Your task to perform on an android device: Search for Italian restaurants on Maps Image 0: 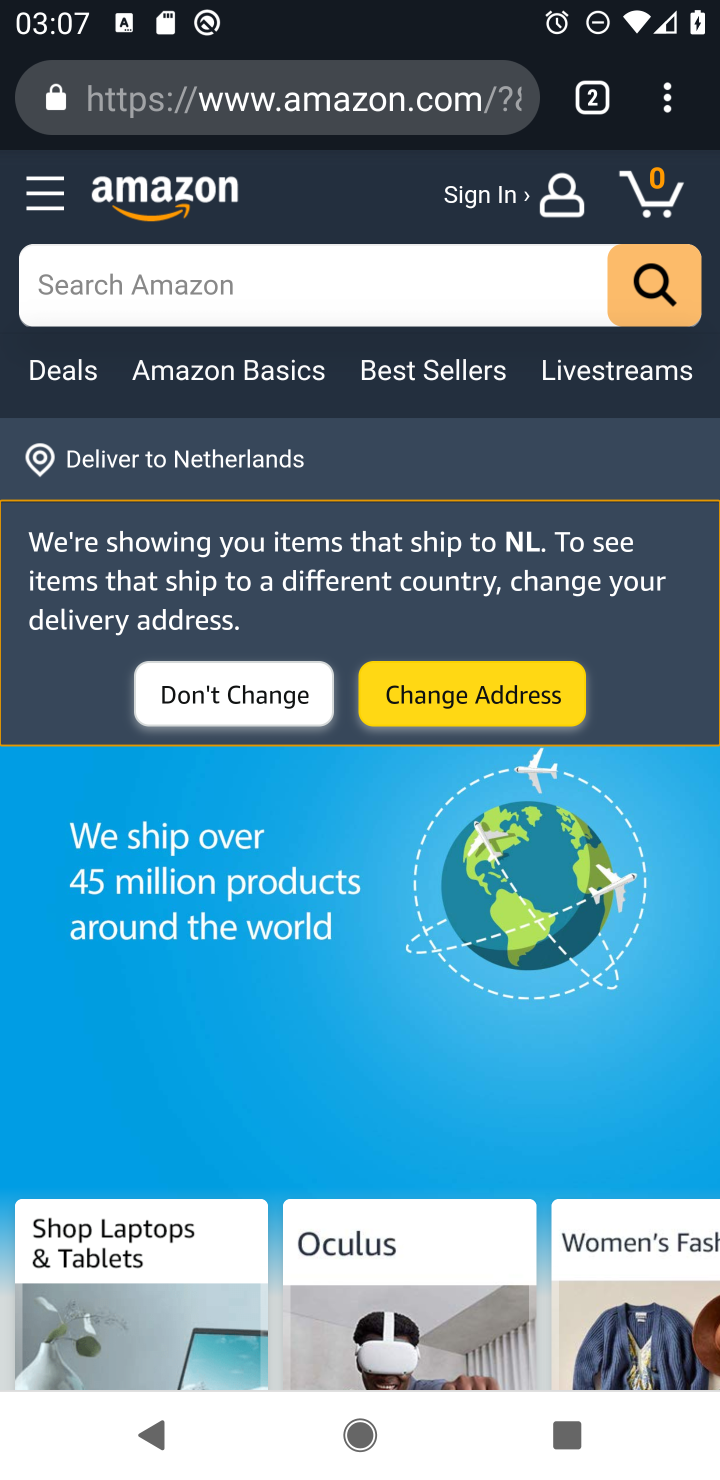
Step 0: press home button
Your task to perform on an android device: Search for Italian restaurants on Maps Image 1: 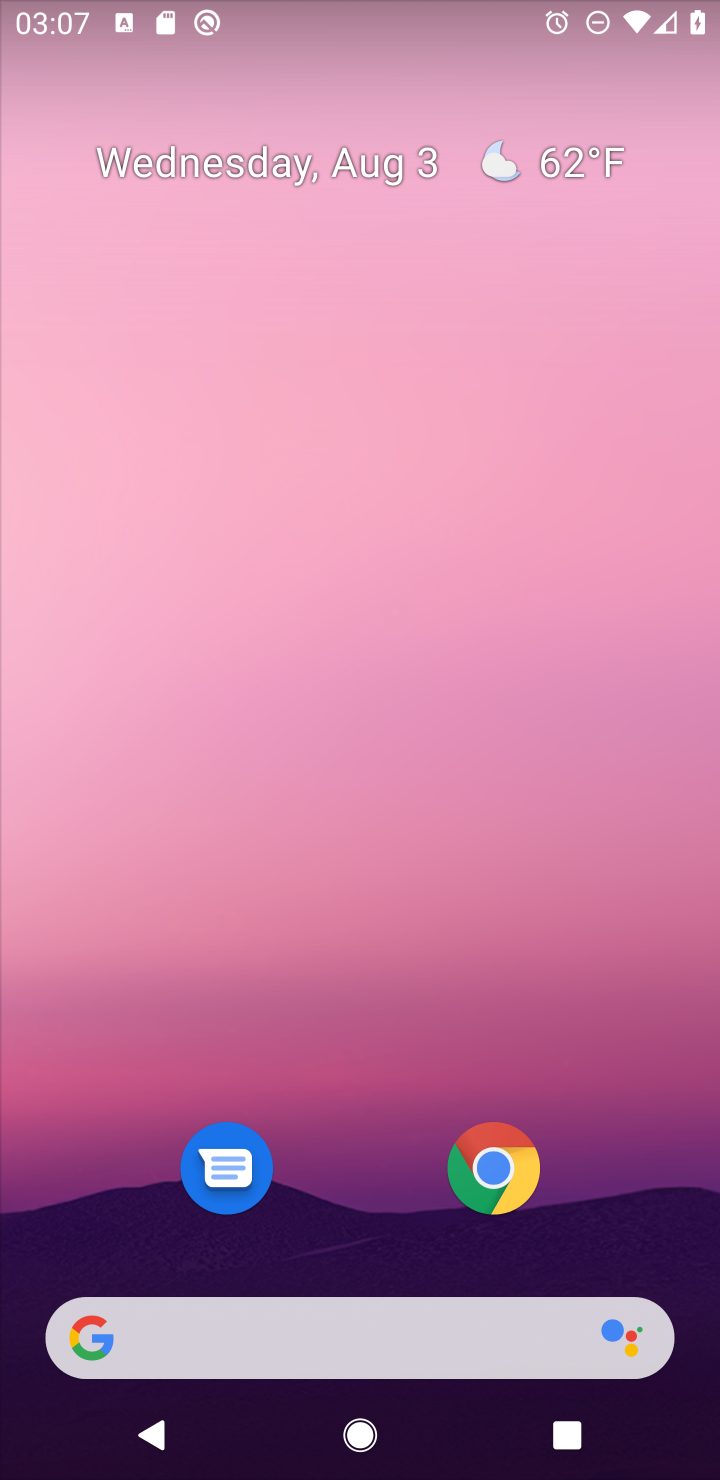
Step 1: drag from (676, 1268) to (581, 323)
Your task to perform on an android device: Search for Italian restaurants on Maps Image 2: 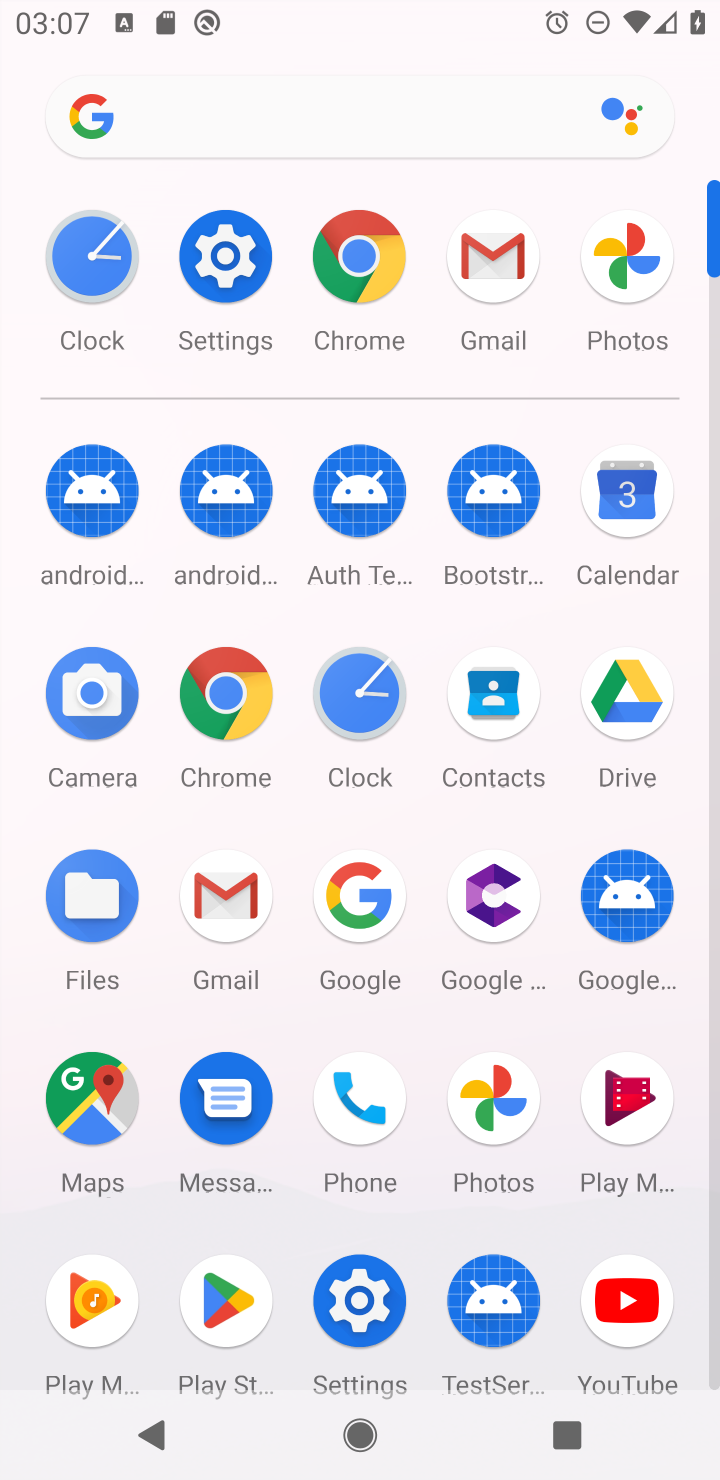
Step 2: click (90, 1103)
Your task to perform on an android device: Search for Italian restaurants on Maps Image 3: 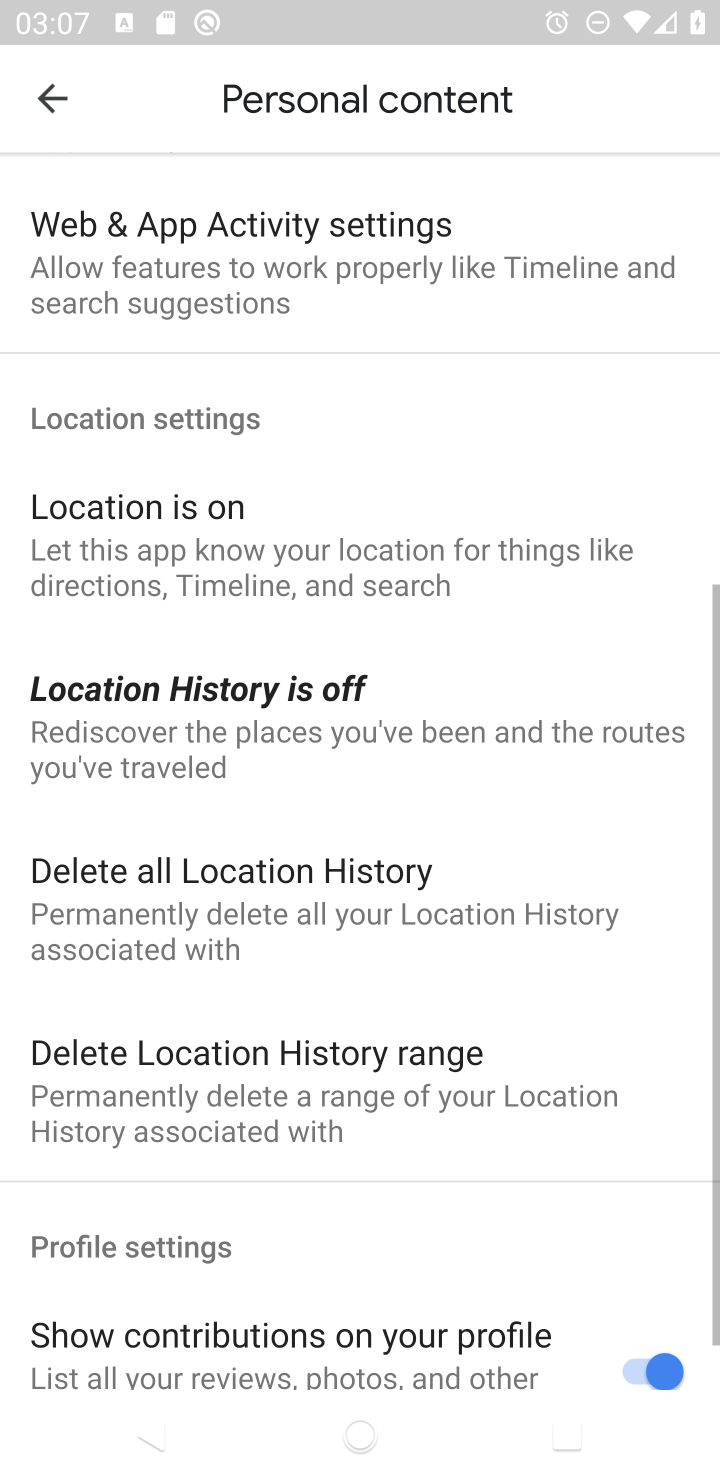
Step 3: press back button
Your task to perform on an android device: Search for Italian restaurants on Maps Image 4: 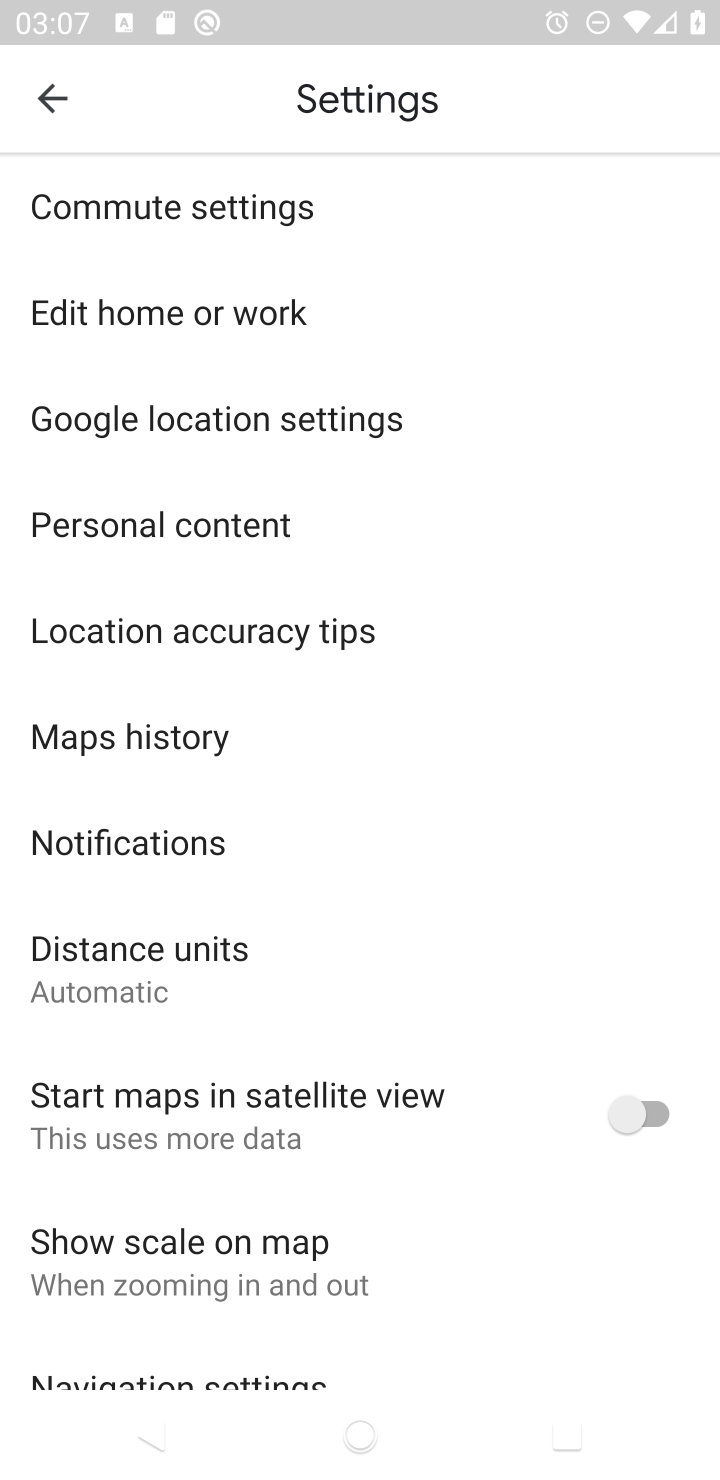
Step 4: press back button
Your task to perform on an android device: Search for Italian restaurants on Maps Image 5: 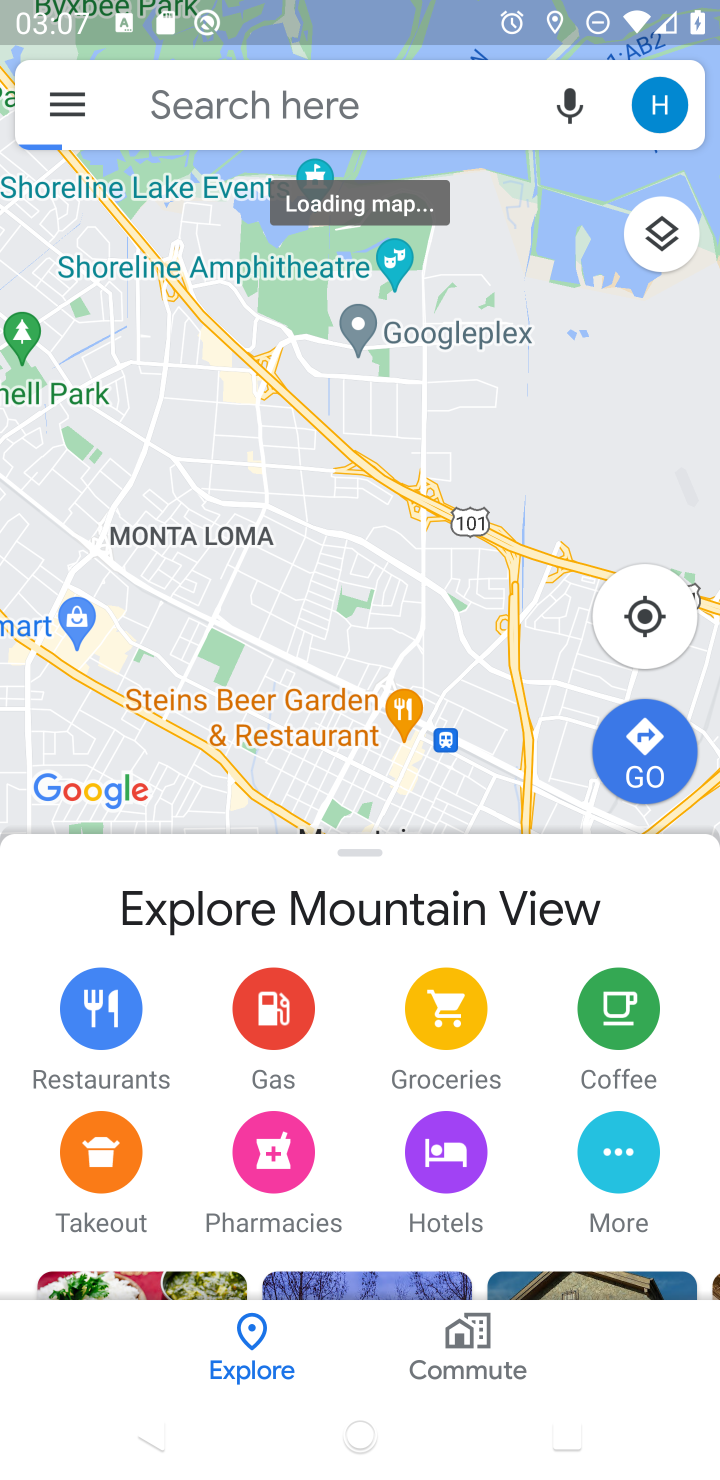
Step 5: click (236, 99)
Your task to perform on an android device: Search for Italian restaurants on Maps Image 6: 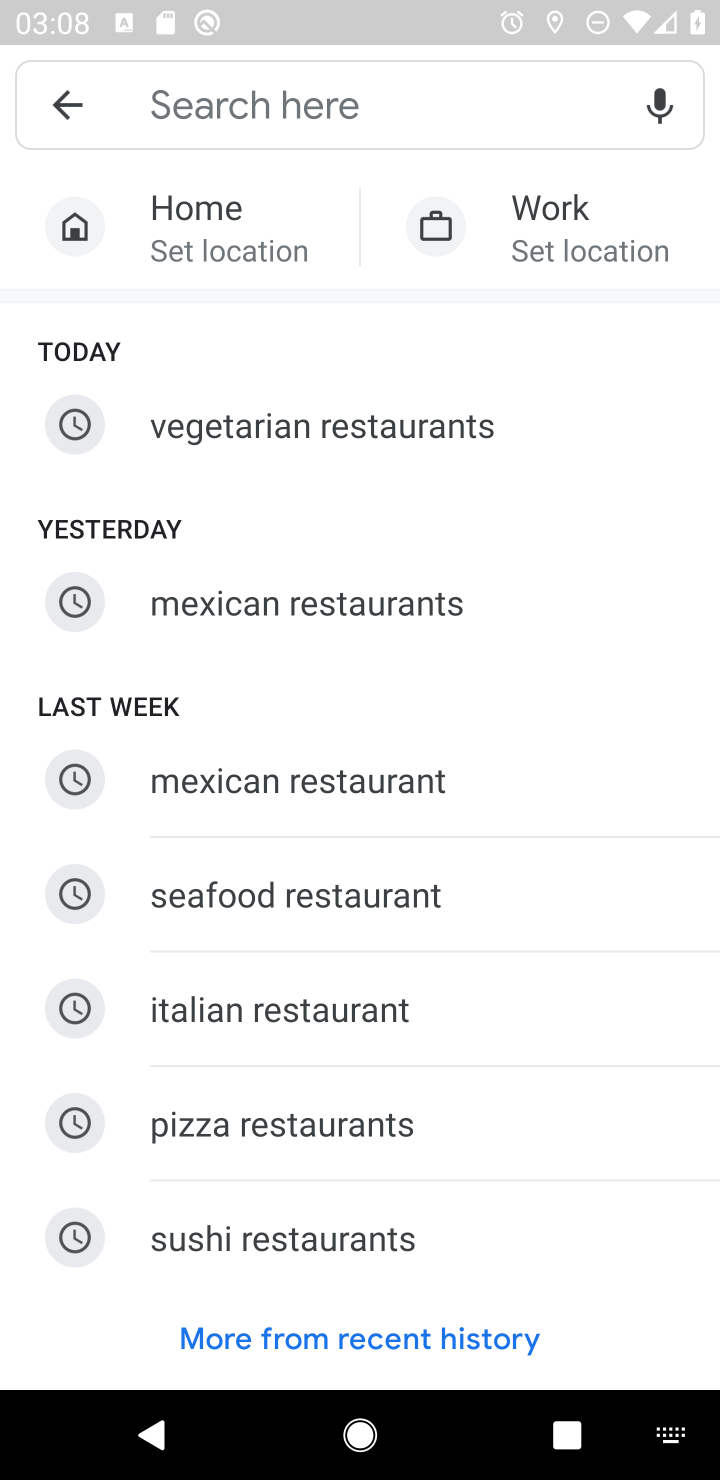
Step 6: type "italian restaurants"
Your task to perform on an android device: Search for Italian restaurants on Maps Image 7: 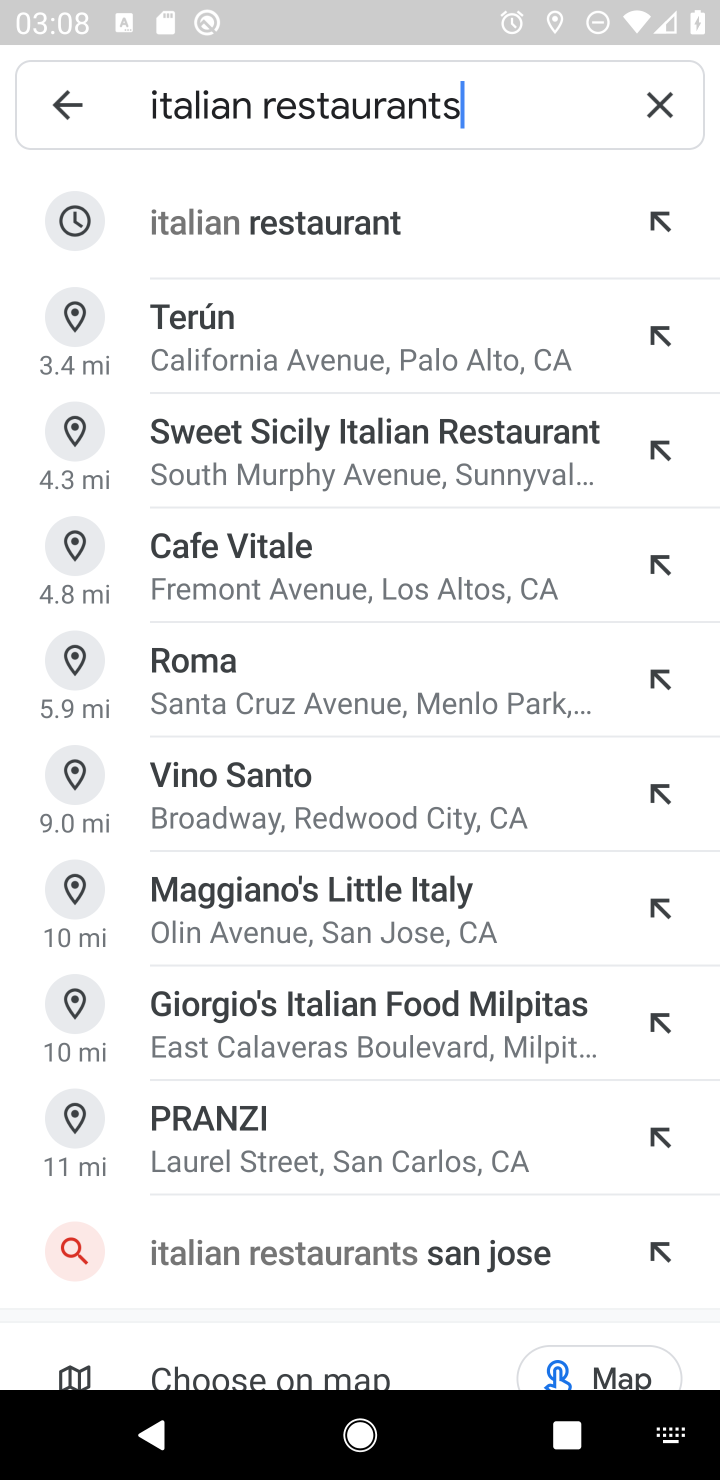
Step 7: click (245, 198)
Your task to perform on an android device: Search for Italian restaurants on Maps Image 8: 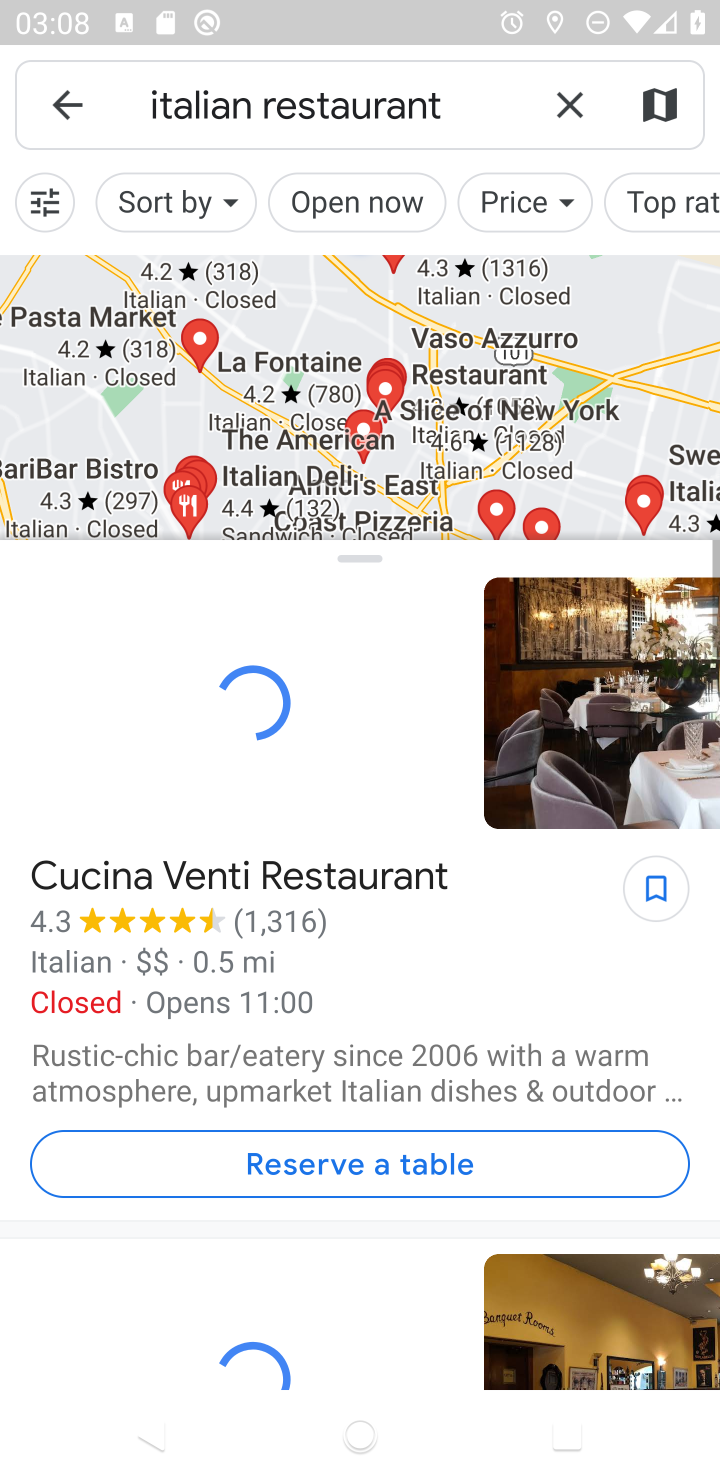
Step 8: task complete